Your task to perform on an android device: set an alarm Image 0: 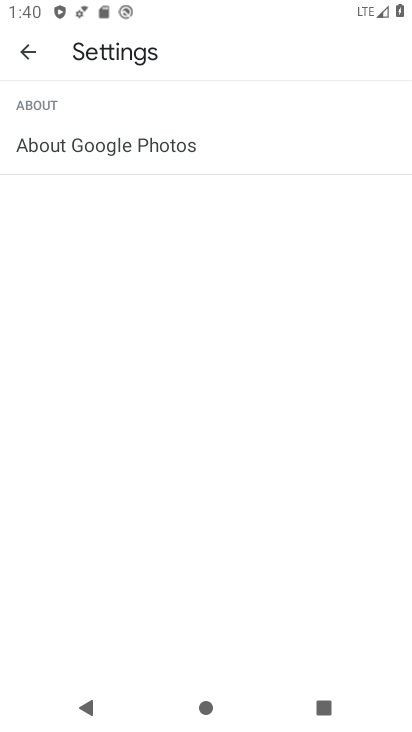
Step 0: press home button
Your task to perform on an android device: set an alarm Image 1: 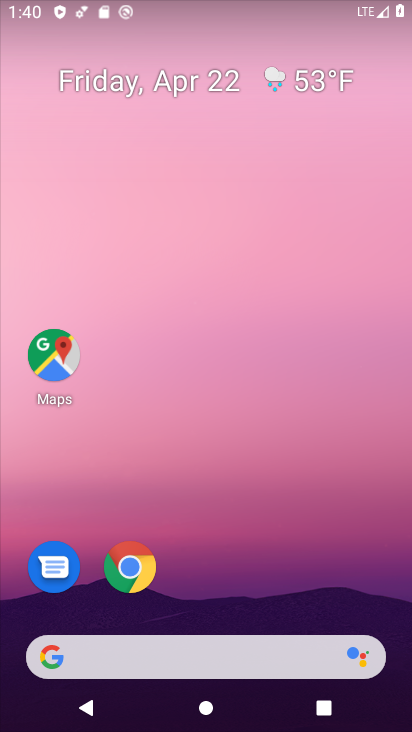
Step 1: drag from (334, 589) to (260, 142)
Your task to perform on an android device: set an alarm Image 2: 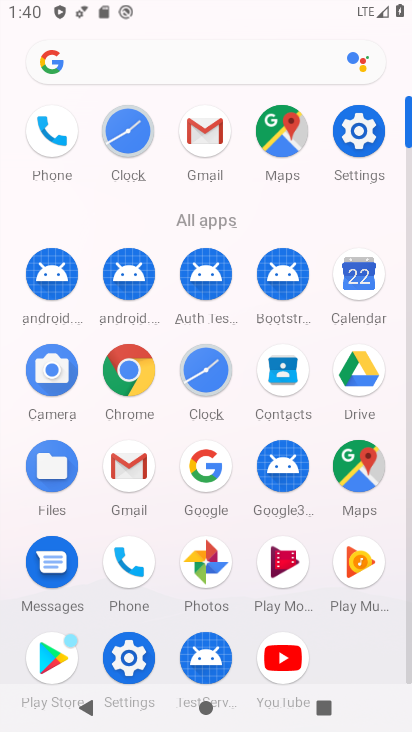
Step 2: click (206, 373)
Your task to perform on an android device: set an alarm Image 3: 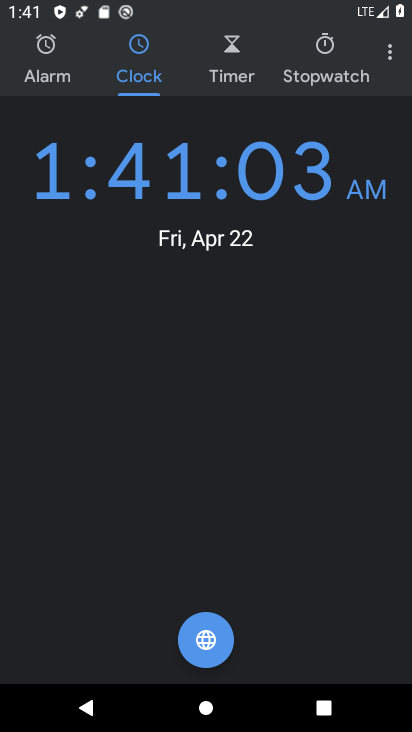
Step 3: click (35, 80)
Your task to perform on an android device: set an alarm Image 4: 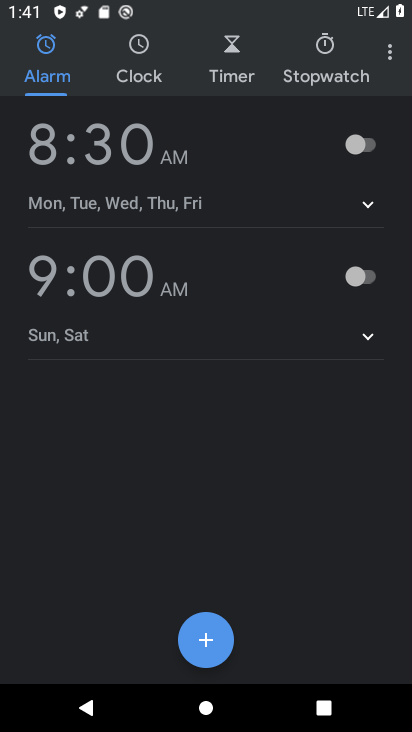
Step 4: click (75, 187)
Your task to perform on an android device: set an alarm Image 5: 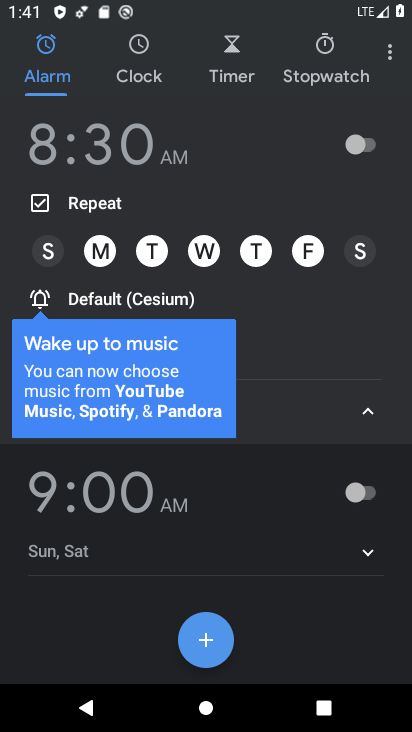
Step 5: click (70, 123)
Your task to perform on an android device: set an alarm Image 6: 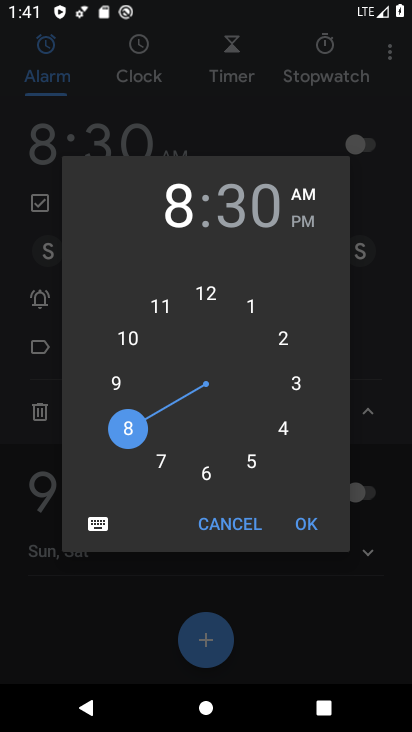
Step 6: click (204, 459)
Your task to perform on an android device: set an alarm Image 7: 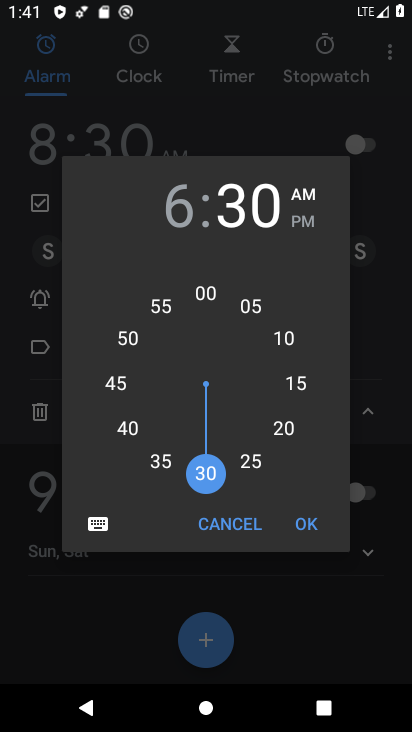
Step 7: click (289, 384)
Your task to perform on an android device: set an alarm Image 8: 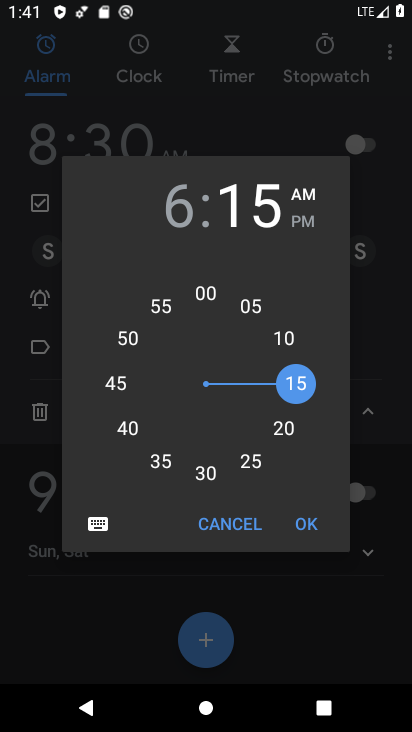
Step 8: click (309, 525)
Your task to perform on an android device: set an alarm Image 9: 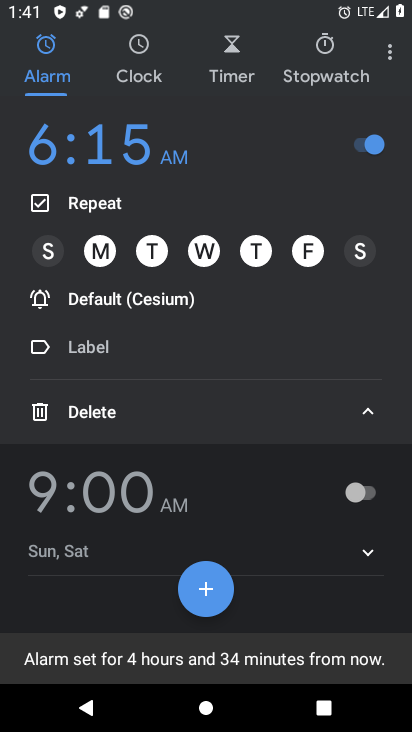
Step 9: click (352, 248)
Your task to perform on an android device: set an alarm Image 10: 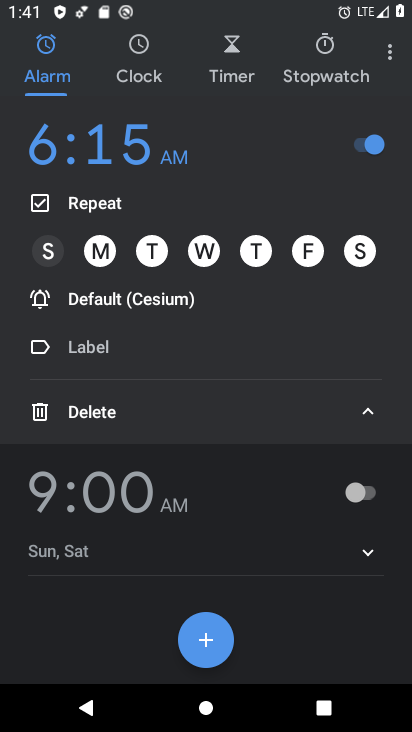
Step 10: click (365, 416)
Your task to perform on an android device: set an alarm Image 11: 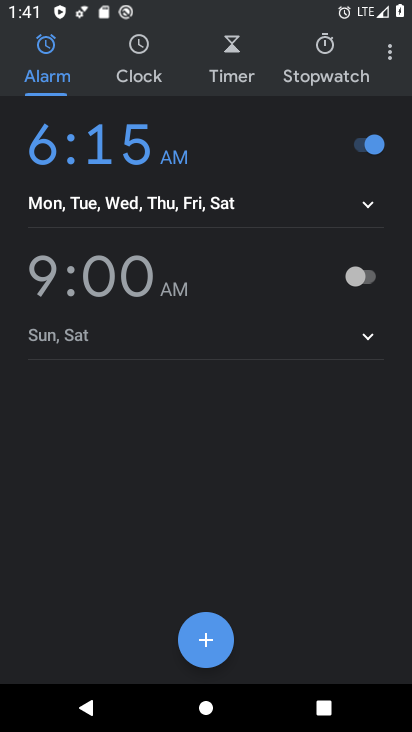
Step 11: task complete